Your task to perform on an android device: clear history in the chrome app Image 0: 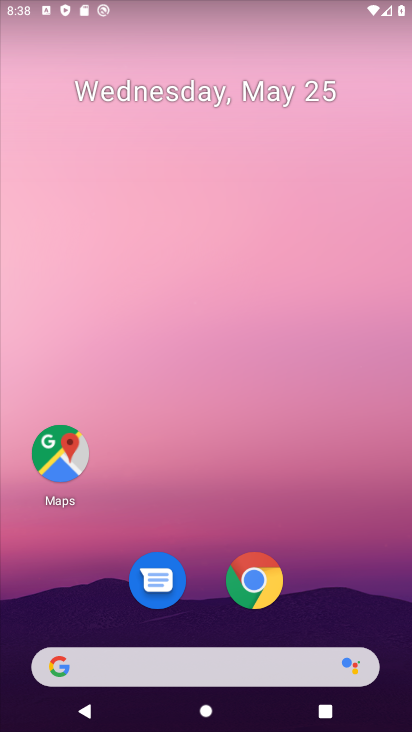
Step 0: click (261, 571)
Your task to perform on an android device: clear history in the chrome app Image 1: 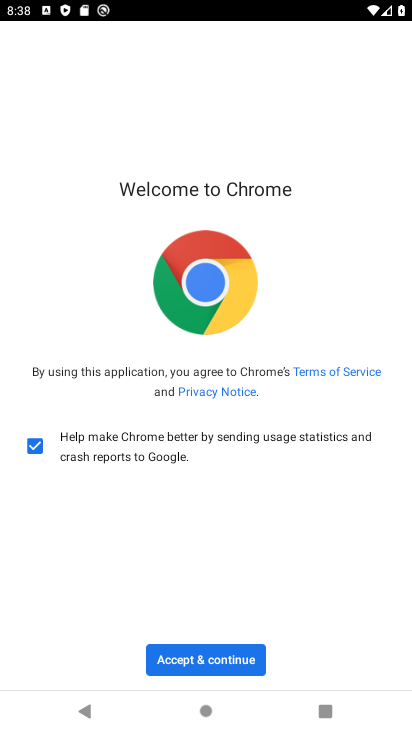
Step 1: click (222, 649)
Your task to perform on an android device: clear history in the chrome app Image 2: 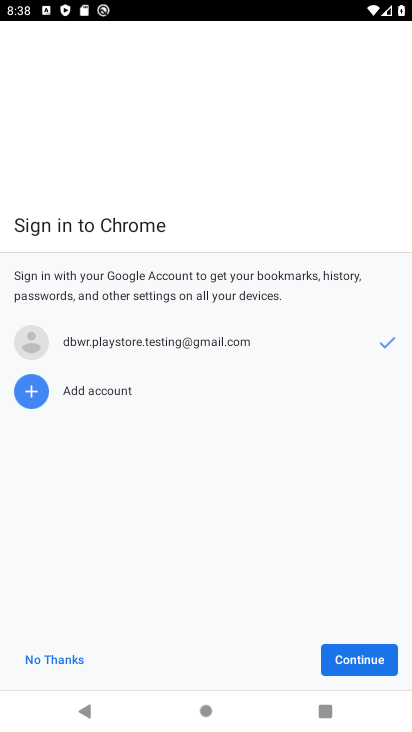
Step 2: click (63, 665)
Your task to perform on an android device: clear history in the chrome app Image 3: 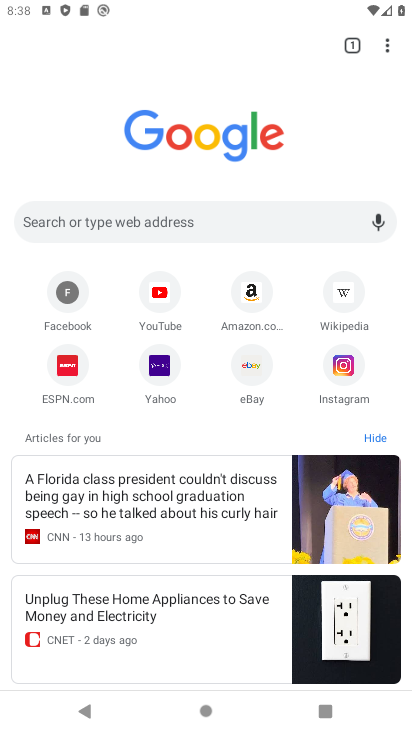
Step 3: click (390, 50)
Your task to perform on an android device: clear history in the chrome app Image 4: 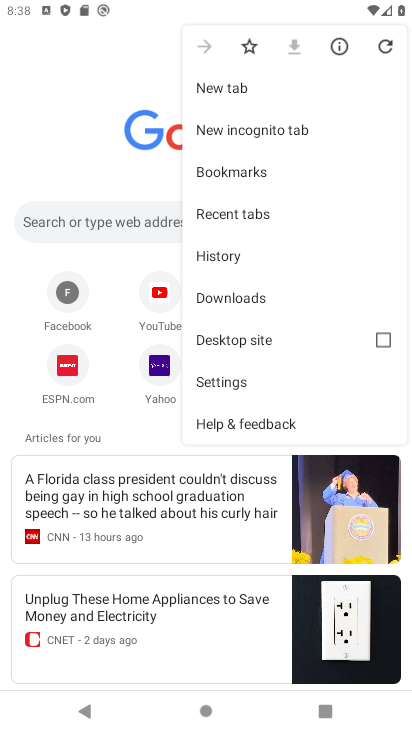
Step 4: click (240, 250)
Your task to perform on an android device: clear history in the chrome app Image 5: 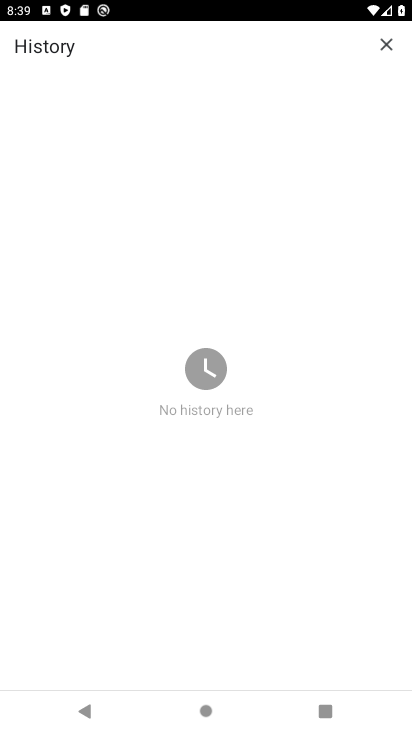
Step 5: task complete